Your task to perform on an android device: Open Youtube and go to the subscriptions tab Image 0: 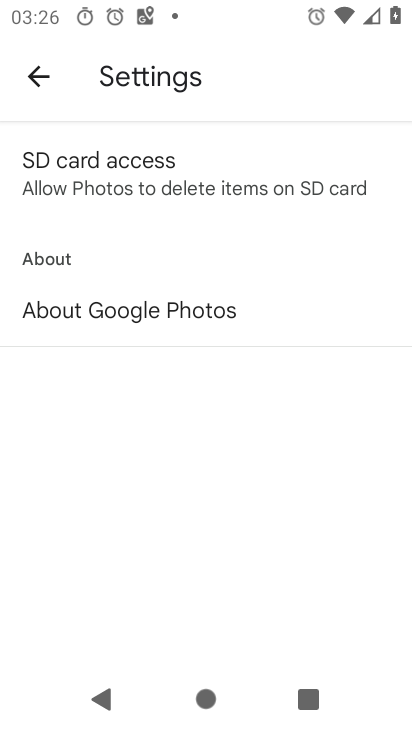
Step 0: press home button
Your task to perform on an android device: Open Youtube and go to the subscriptions tab Image 1: 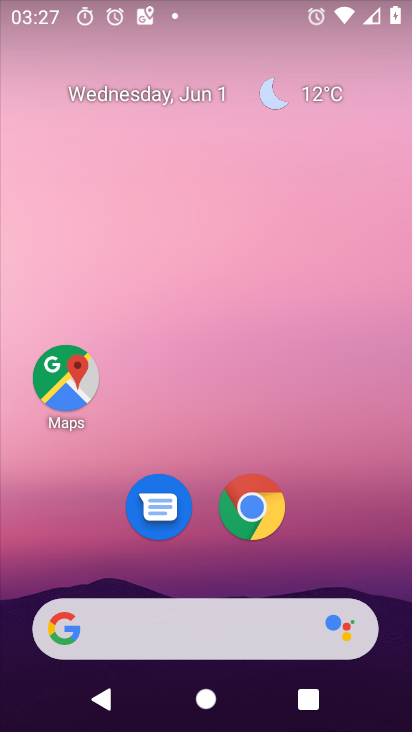
Step 1: drag from (334, 566) to (311, 5)
Your task to perform on an android device: Open Youtube and go to the subscriptions tab Image 2: 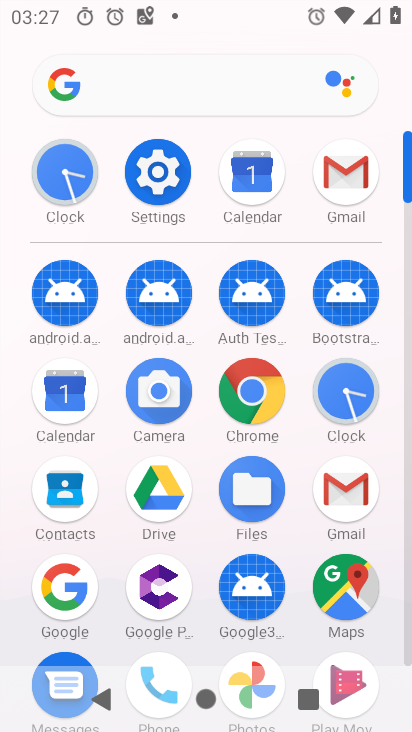
Step 2: click (405, 549)
Your task to perform on an android device: Open Youtube and go to the subscriptions tab Image 3: 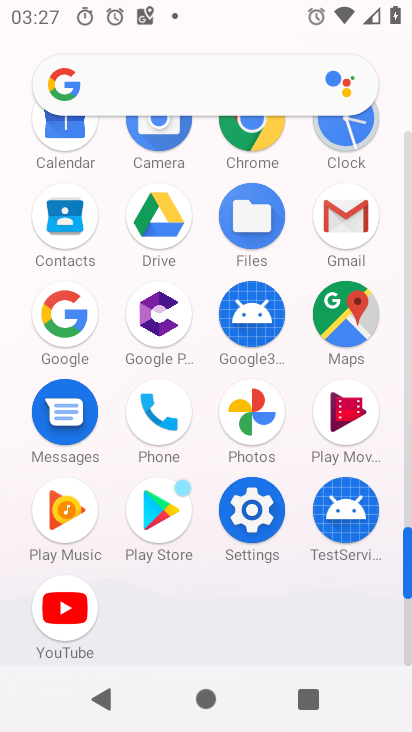
Step 3: click (72, 617)
Your task to perform on an android device: Open Youtube and go to the subscriptions tab Image 4: 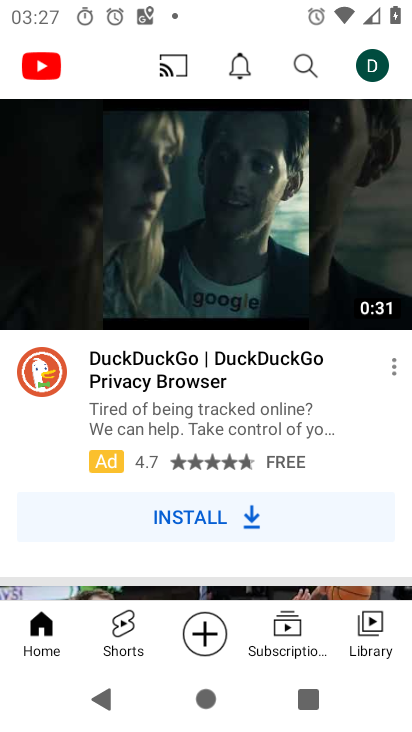
Step 4: click (289, 649)
Your task to perform on an android device: Open Youtube and go to the subscriptions tab Image 5: 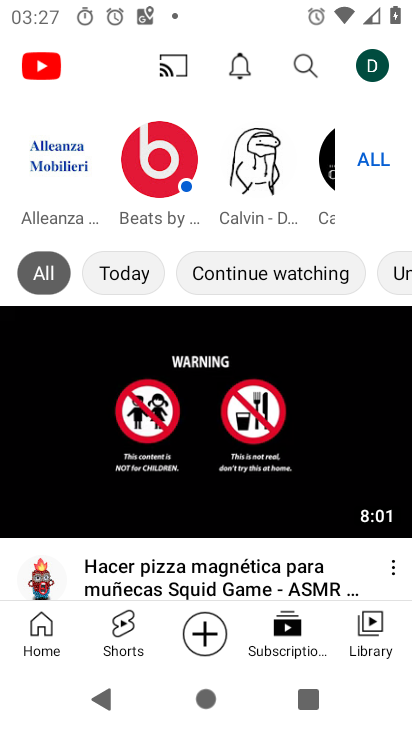
Step 5: task complete